Your task to perform on an android device: check storage Image 0: 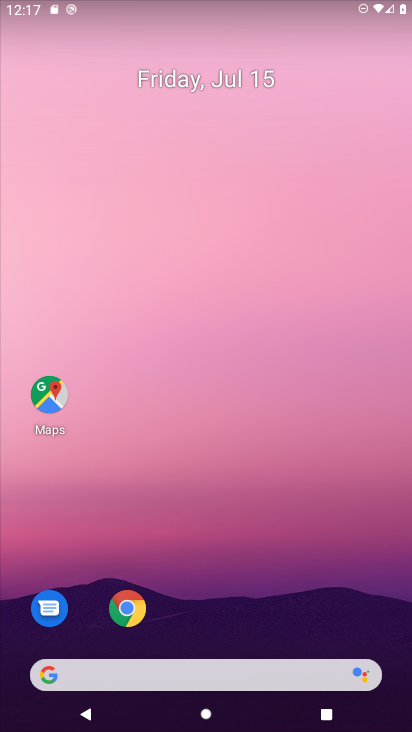
Step 0: drag from (71, 660) to (22, 59)
Your task to perform on an android device: check storage Image 1: 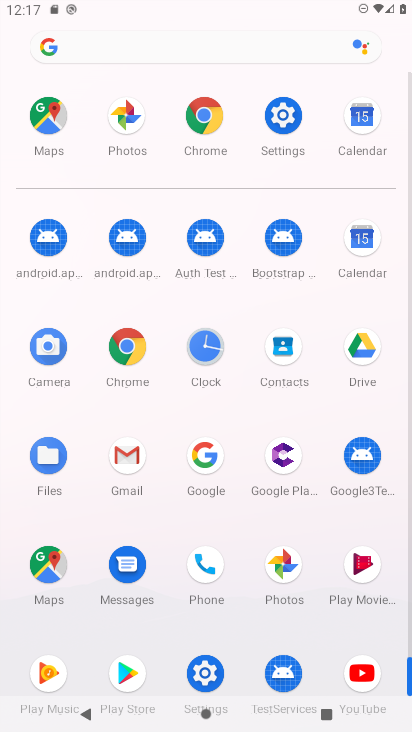
Step 1: click (290, 126)
Your task to perform on an android device: check storage Image 2: 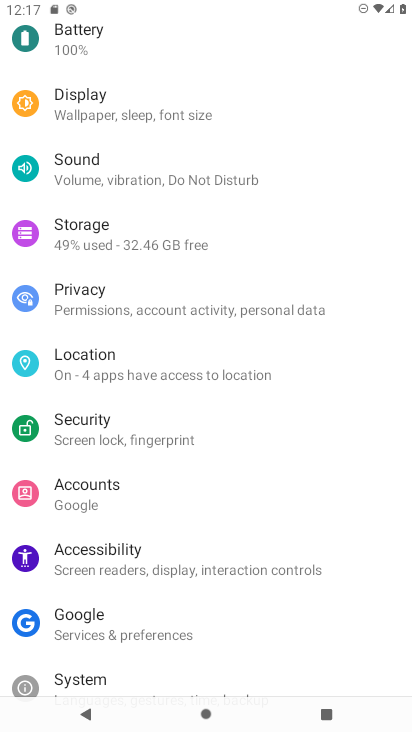
Step 2: click (118, 235)
Your task to perform on an android device: check storage Image 3: 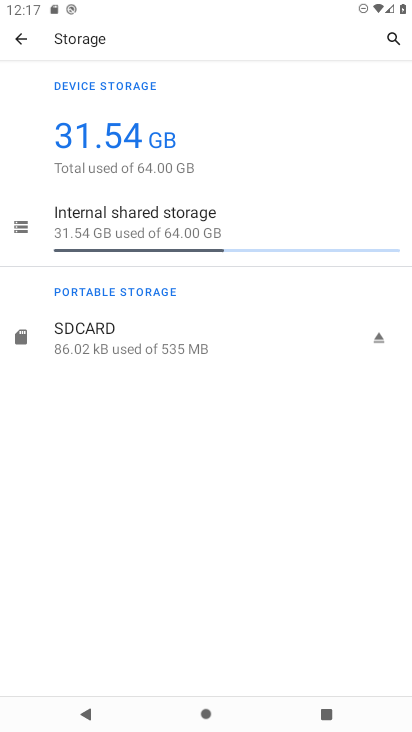
Step 3: task complete